Your task to perform on an android device: toggle translation in the chrome app Image 0: 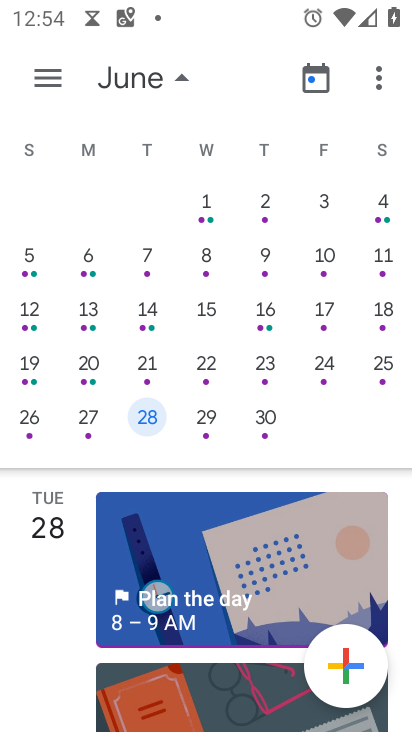
Step 0: press home button
Your task to perform on an android device: toggle translation in the chrome app Image 1: 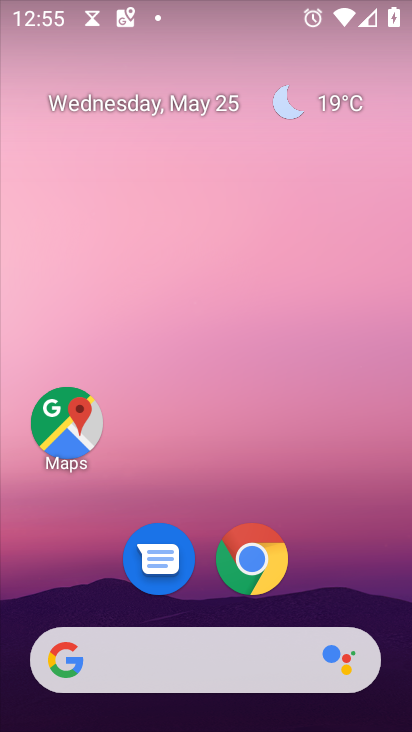
Step 1: drag from (337, 584) to (312, 44)
Your task to perform on an android device: toggle translation in the chrome app Image 2: 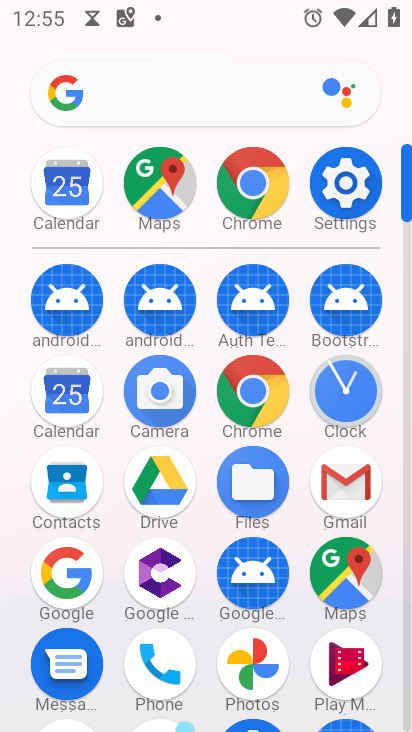
Step 2: click (260, 200)
Your task to perform on an android device: toggle translation in the chrome app Image 3: 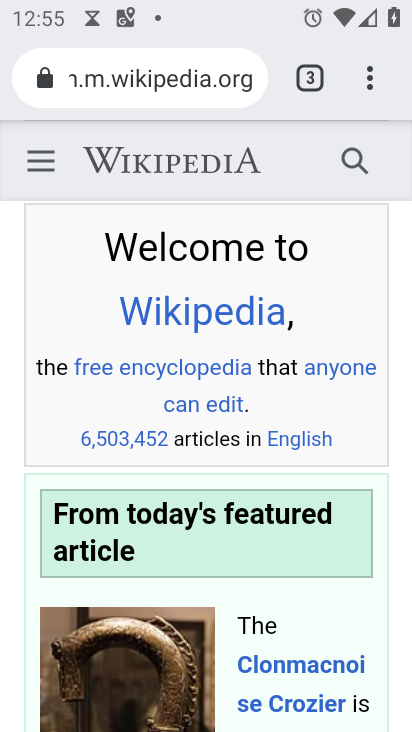
Step 3: drag from (362, 67) to (134, 610)
Your task to perform on an android device: toggle translation in the chrome app Image 4: 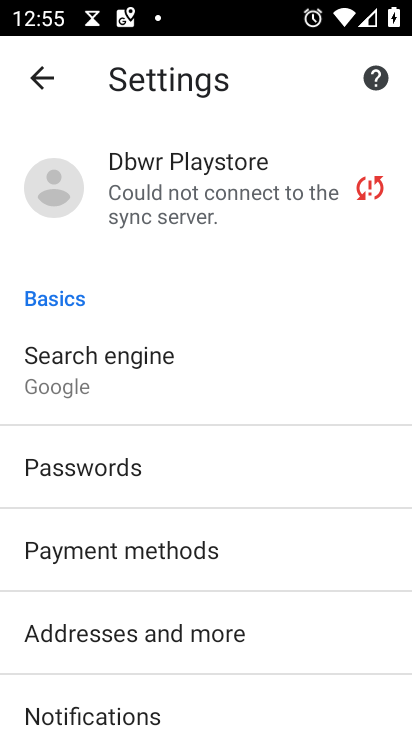
Step 4: drag from (136, 570) to (172, 197)
Your task to perform on an android device: toggle translation in the chrome app Image 5: 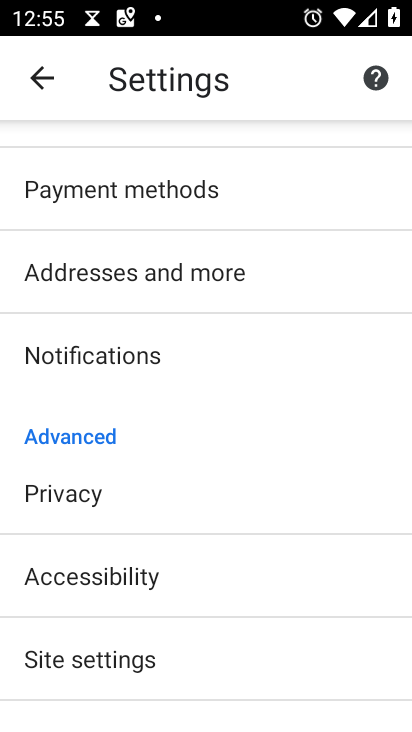
Step 5: drag from (239, 624) to (280, 172)
Your task to perform on an android device: toggle translation in the chrome app Image 6: 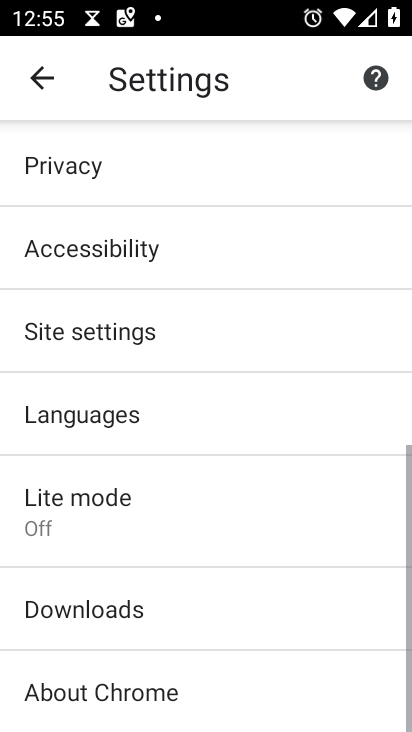
Step 6: click (123, 422)
Your task to perform on an android device: toggle translation in the chrome app Image 7: 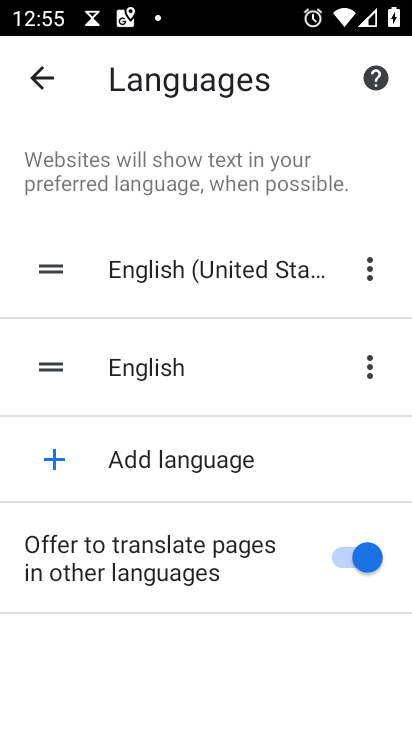
Step 7: click (366, 558)
Your task to perform on an android device: toggle translation in the chrome app Image 8: 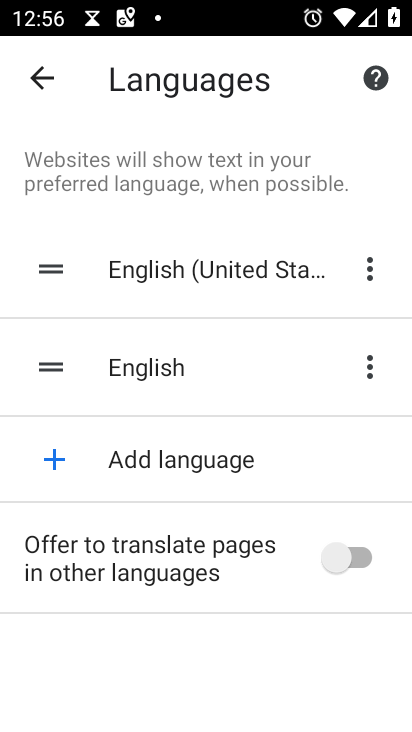
Step 8: task complete